Your task to perform on an android device: change notification settings in the gmail app Image 0: 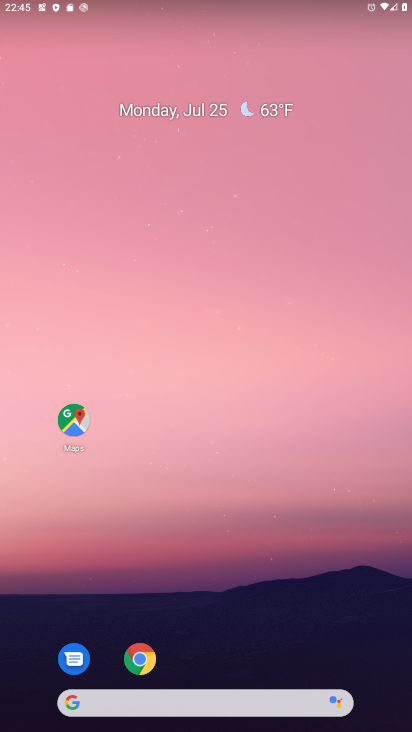
Step 0: drag from (162, 722) to (160, 183)
Your task to perform on an android device: change notification settings in the gmail app Image 1: 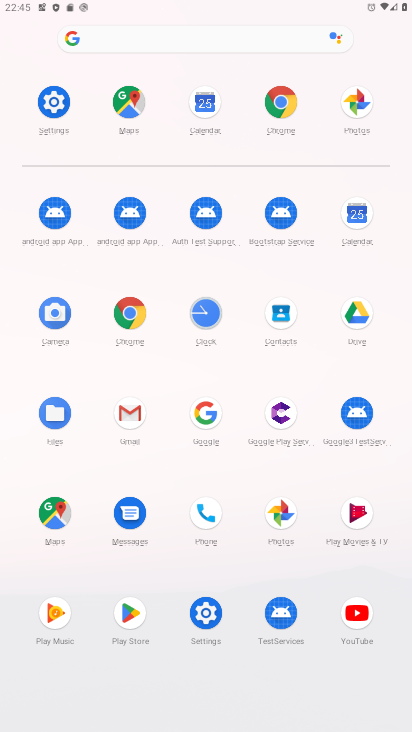
Step 1: click (132, 415)
Your task to perform on an android device: change notification settings in the gmail app Image 2: 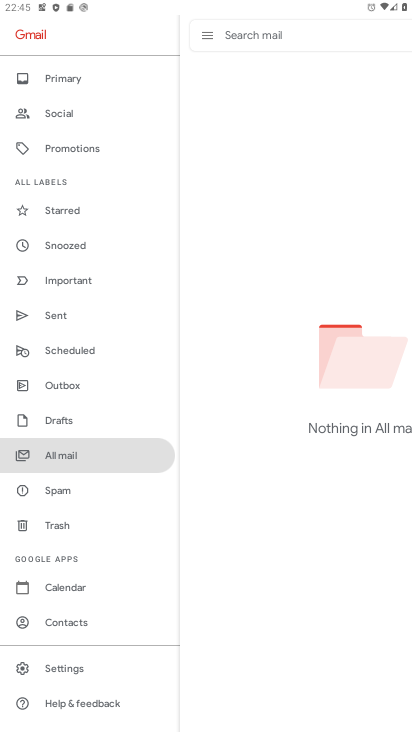
Step 2: click (65, 666)
Your task to perform on an android device: change notification settings in the gmail app Image 3: 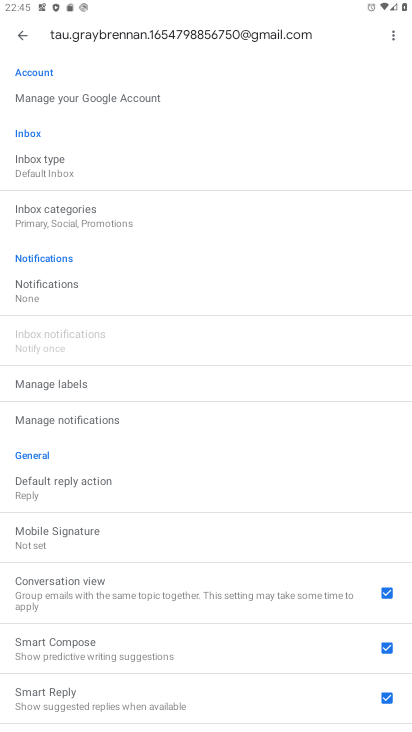
Step 3: click (29, 291)
Your task to perform on an android device: change notification settings in the gmail app Image 4: 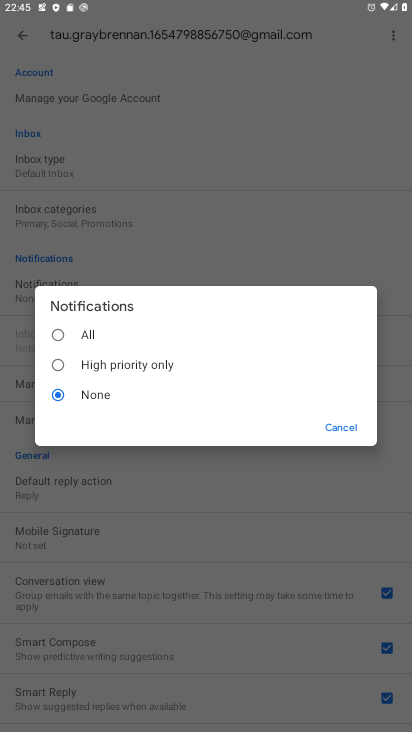
Step 4: click (55, 334)
Your task to perform on an android device: change notification settings in the gmail app Image 5: 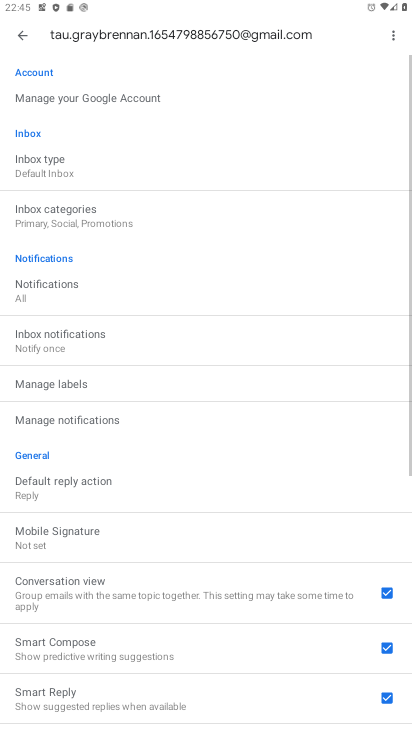
Step 5: task complete